Your task to perform on an android device: Open Amazon Image 0: 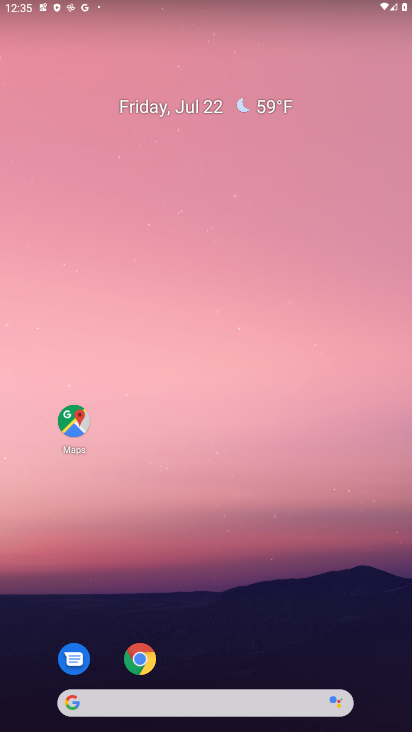
Step 0: drag from (381, 597) to (294, 101)
Your task to perform on an android device: Open Amazon Image 1: 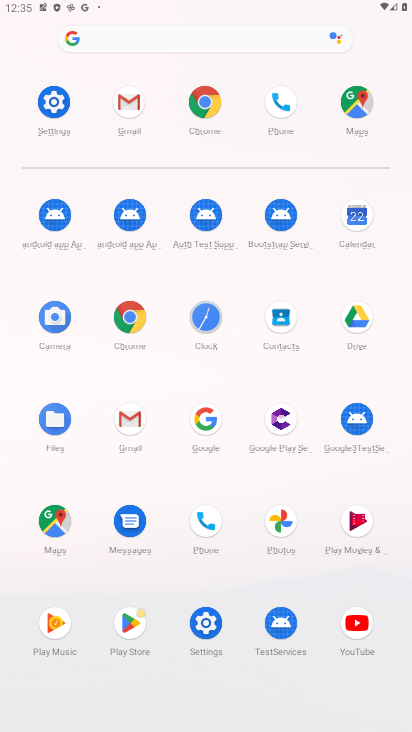
Step 1: click (203, 100)
Your task to perform on an android device: Open Amazon Image 2: 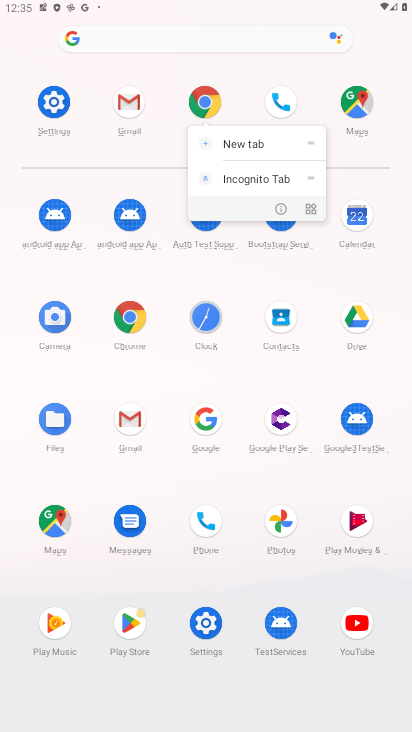
Step 2: click (194, 97)
Your task to perform on an android device: Open Amazon Image 3: 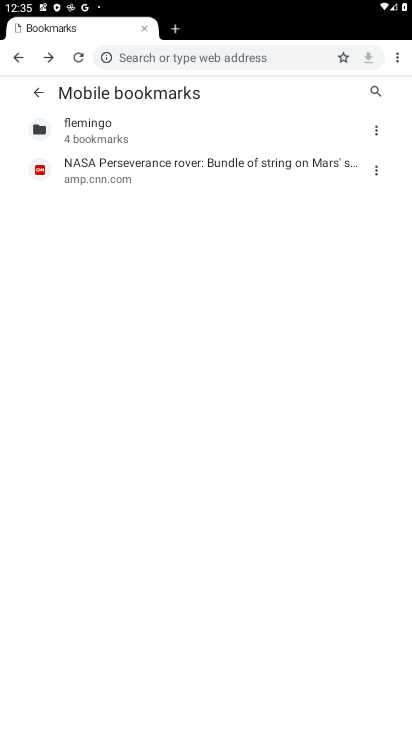
Step 3: click (177, 35)
Your task to perform on an android device: Open Amazon Image 4: 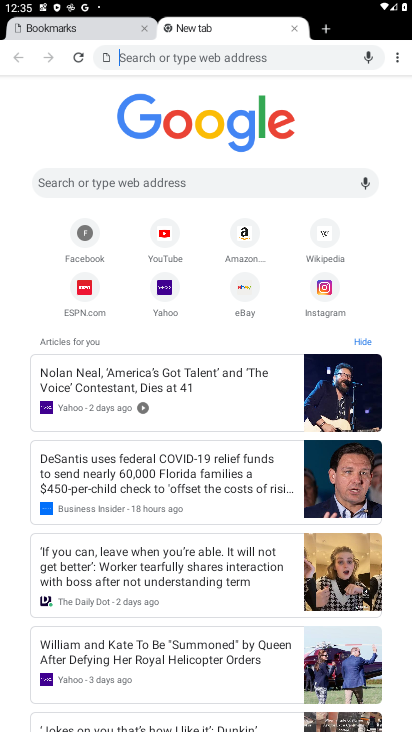
Step 4: click (247, 237)
Your task to perform on an android device: Open Amazon Image 5: 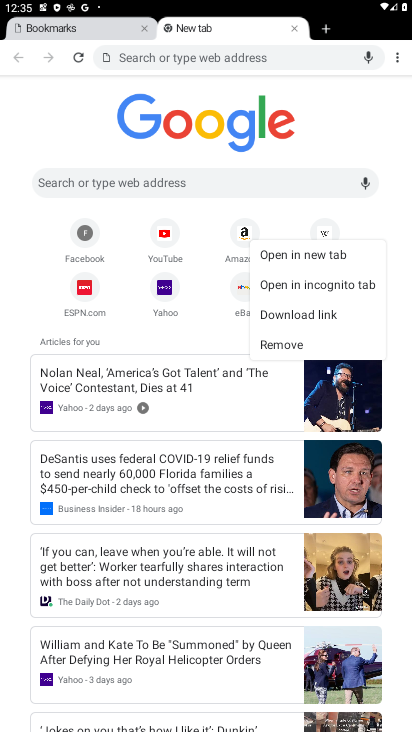
Step 5: click (246, 234)
Your task to perform on an android device: Open Amazon Image 6: 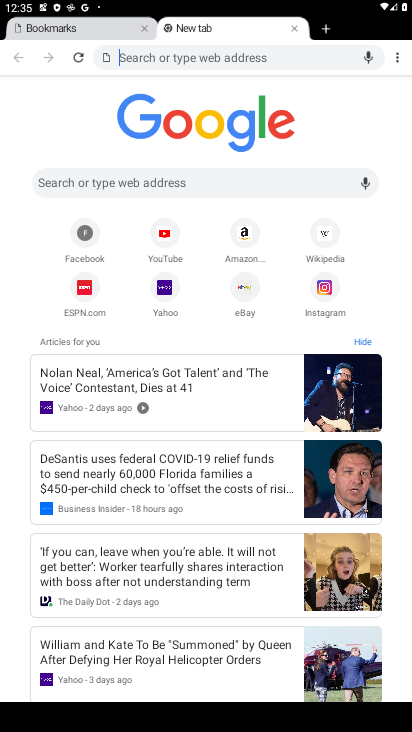
Step 6: click (241, 231)
Your task to perform on an android device: Open Amazon Image 7: 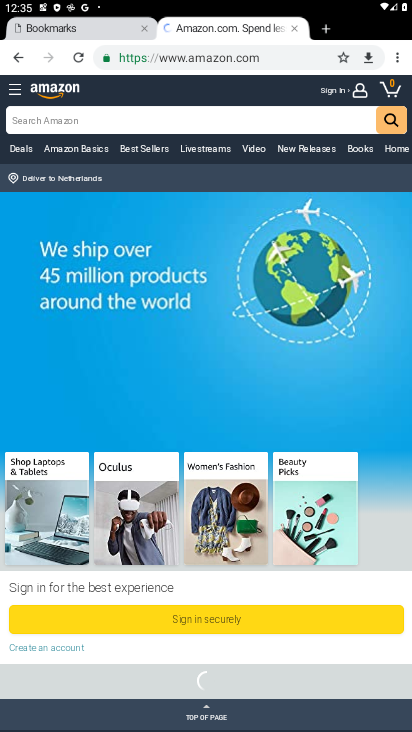
Step 7: task complete